Your task to perform on an android device: change your default location settings in chrome Image 0: 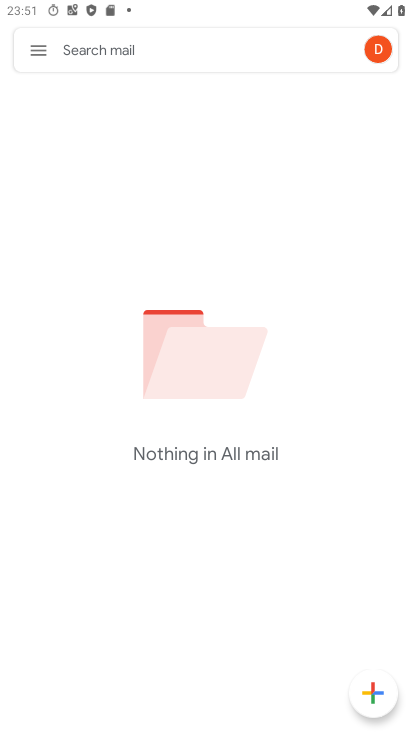
Step 0: press home button
Your task to perform on an android device: change your default location settings in chrome Image 1: 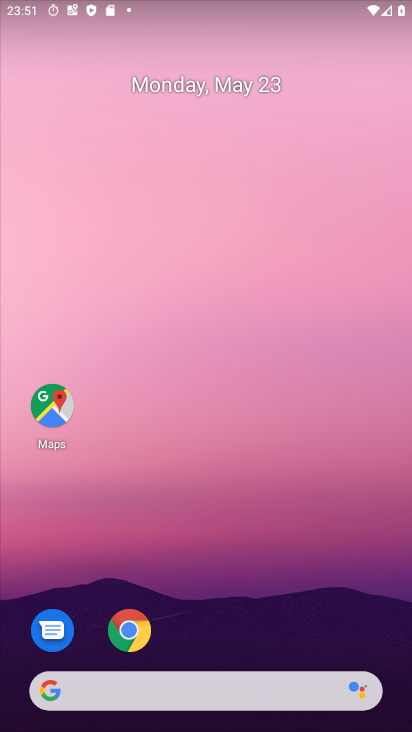
Step 1: click (122, 631)
Your task to perform on an android device: change your default location settings in chrome Image 2: 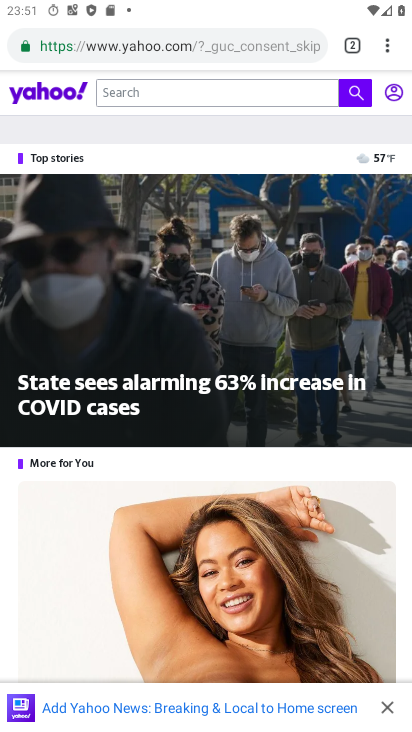
Step 2: click (385, 45)
Your task to perform on an android device: change your default location settings in chrome Image 3: 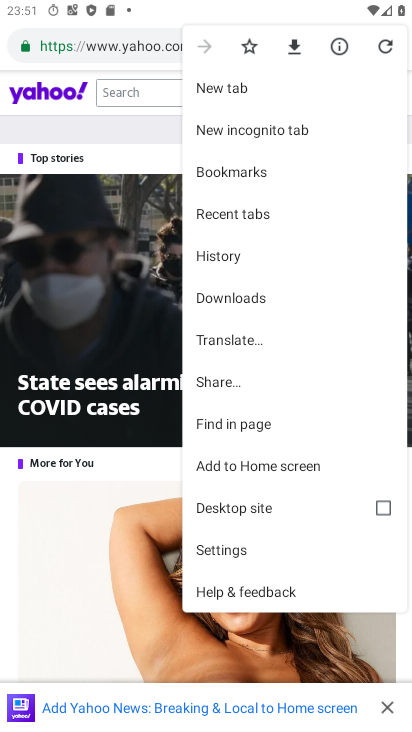
Step 3: click (216, 550)
Your task to perform on an android device: change your default location settings in chrome Image 4: 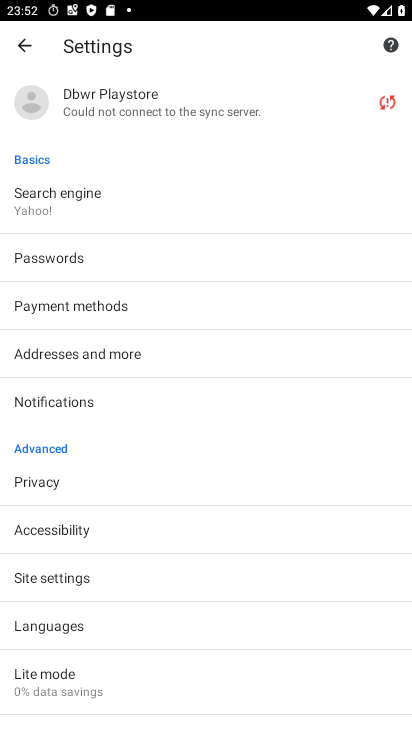
Step 4: click (62, 580)
Your task to perform on an android device: change your default location settings in chrome Image 5: 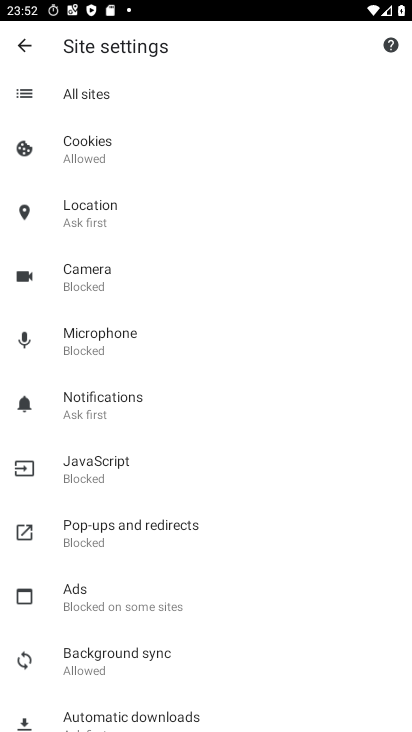
Step 5: click (97, 208)
Your task to perform on an android device: change your default location settings in chrome Image 6: 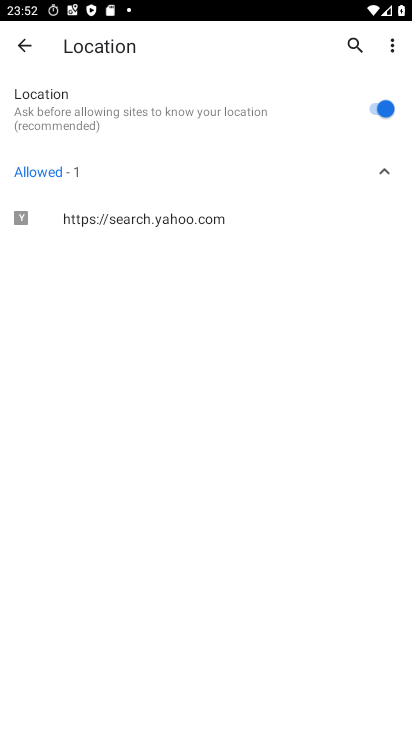
Step 6: click (381, 113)
Your task to perform on an android device: change your default location settings in chrome Image 7: 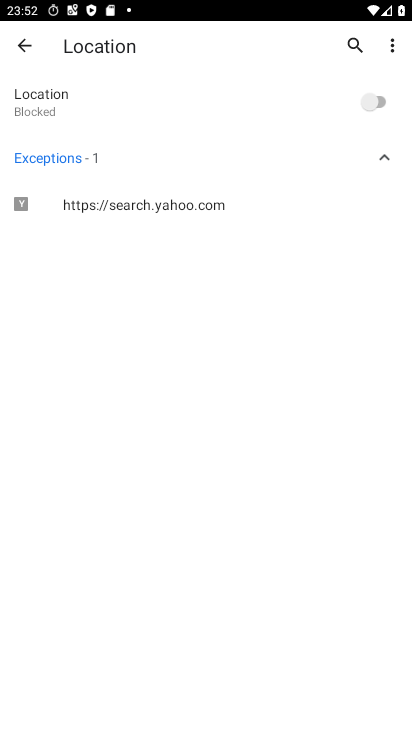
Step 7: task complete